Your task to perform on an android device: change keyboard looks Image 0: 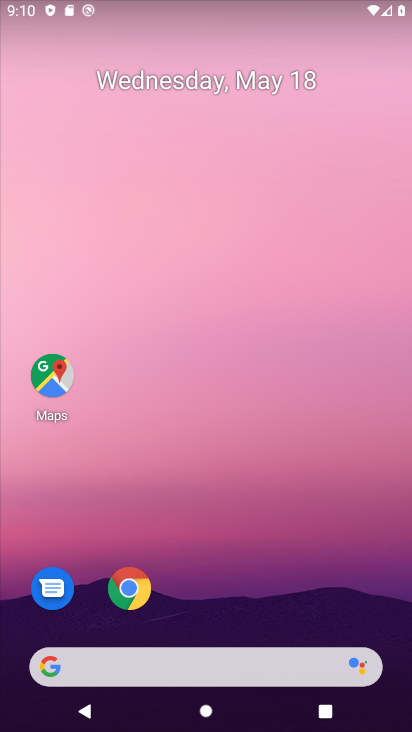
Step 0: drag from (242, 664) to (326, 164)
Your task to perform on an android device: change keyboard looks Image 1: 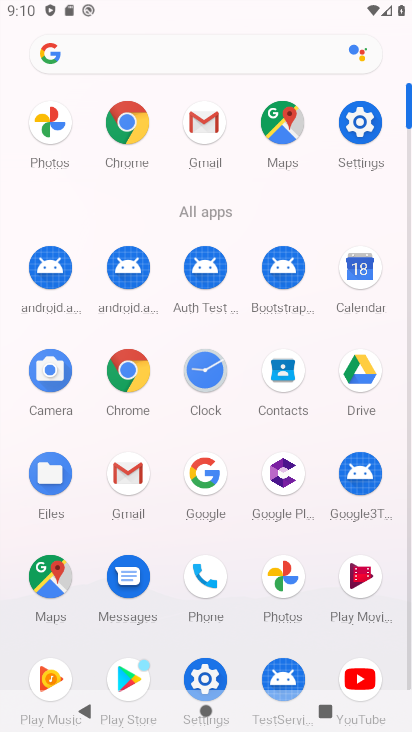
Step 1: click (352, 143)
Your task to perform on an android device: change keyboard looks Image 2: 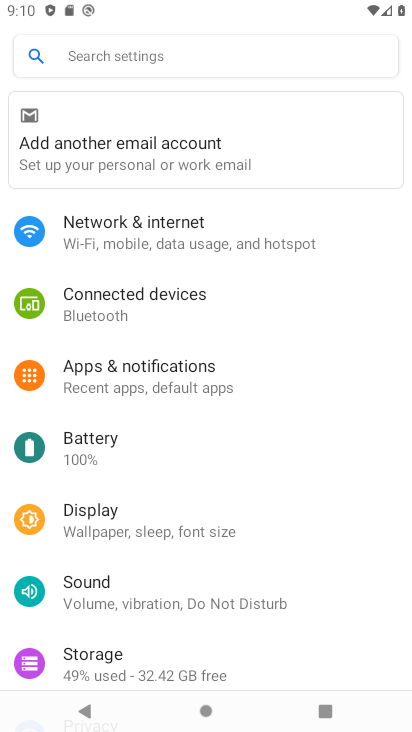
Step 2: click (148, 56)
Your task to perform on an android device: change keyboard looks Image 3: 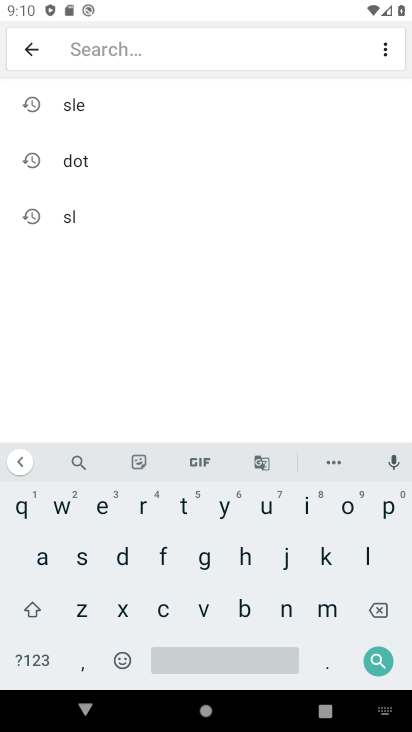
Step 3: click (328, 562)
Your task to perform on an android device: change keyboard looks Image 4: 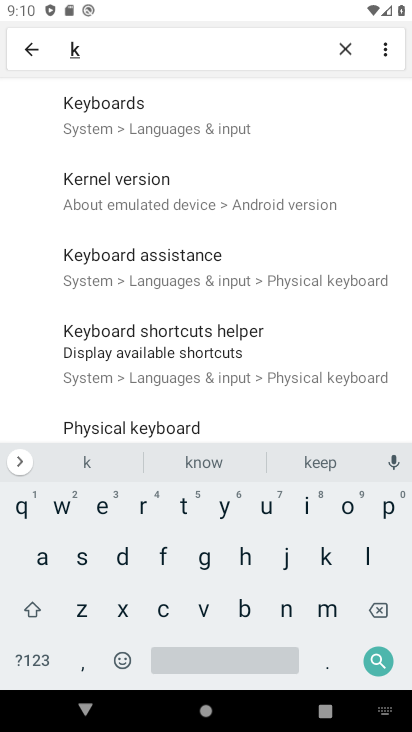
Step 4: click (156, 118)
Your task to perform on an android device: change keyboard looks Image 5: 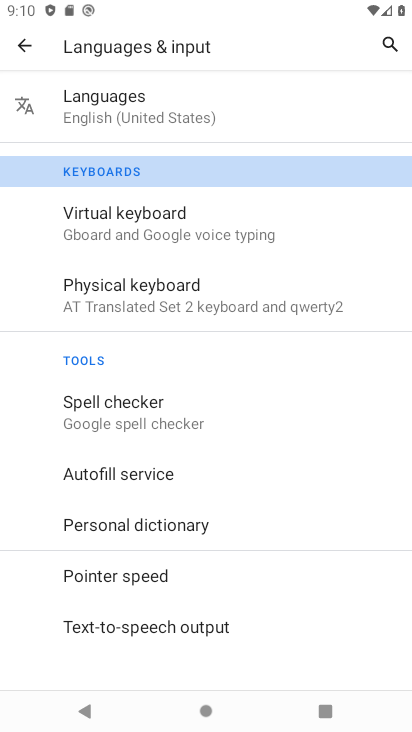
Step 5: click (126, 229)
Your task to perform on an android device: change keyboard looks Image 6: 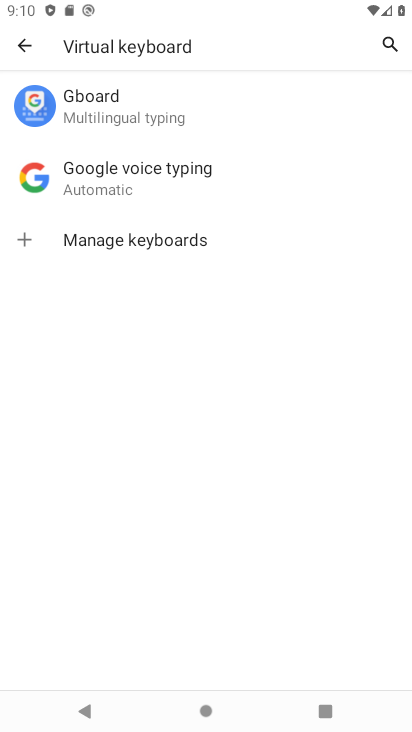
Step 6: click (111, 127)
Your task to perform on an android device: change keyboard looks Image 7: 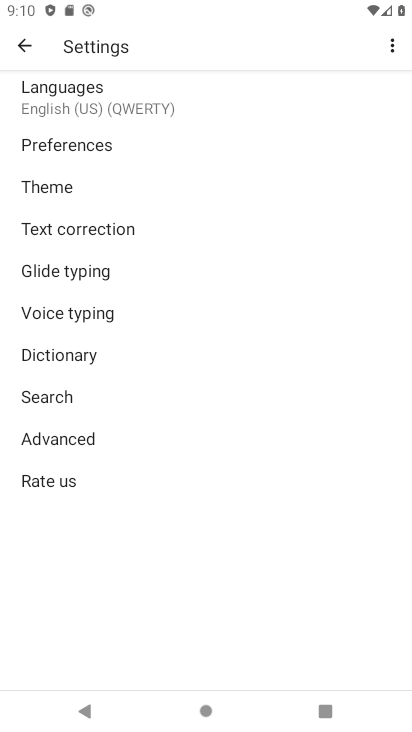
Step 7: click (63, 187)
Your task to perform on an android device: change keyboard looks Image 8: 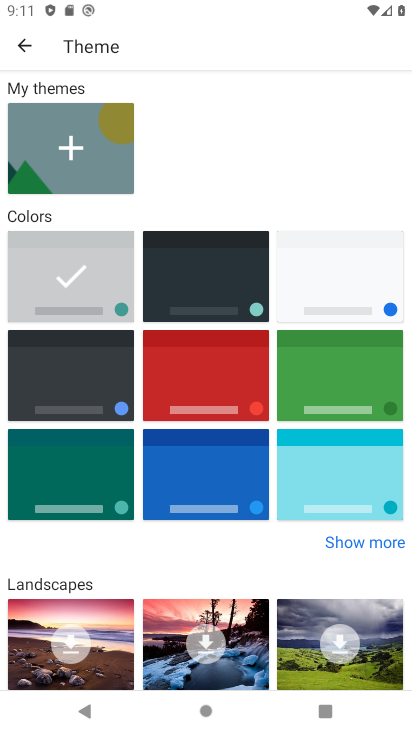
Step 8: click (211, 469)
Your task to perform on an android device: change keyboard looks Image 9: 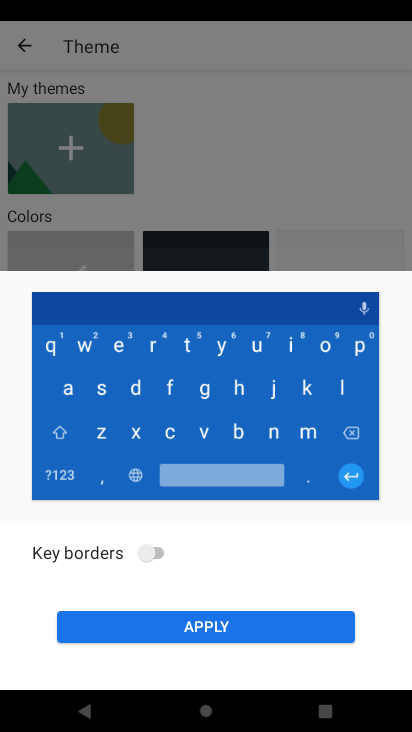
Step 9: click (165, 553)
Your task to perform on an android device: change keyboard looks Image 10: 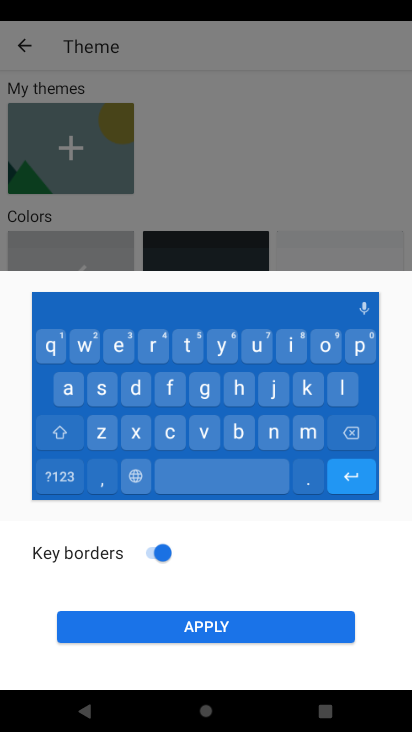
Step 10: click (218, 625)
Your task to perform on an android device: change keyboard looks Image 11: 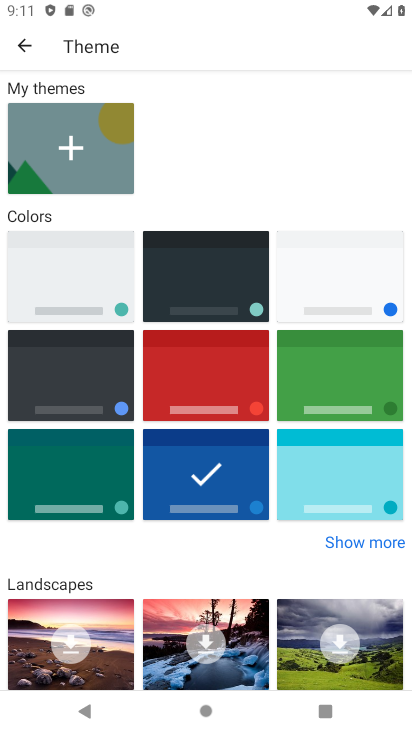
Step 11: task complete